Your task to perform on an android device: Open notification settings Image 0: 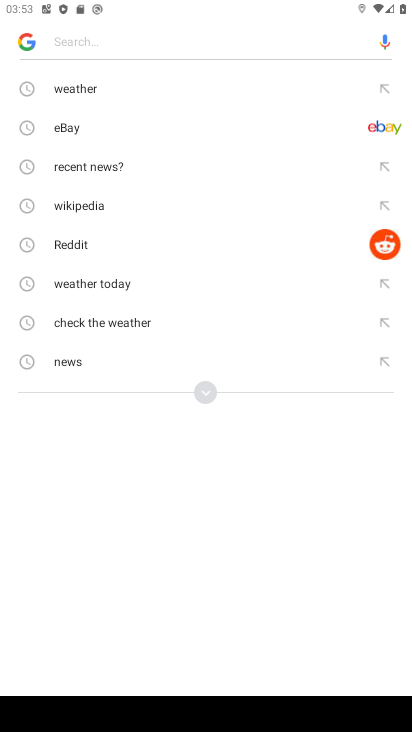
Step 0: press home button
Your task to perform on an android device: Open notification settings Image 1: 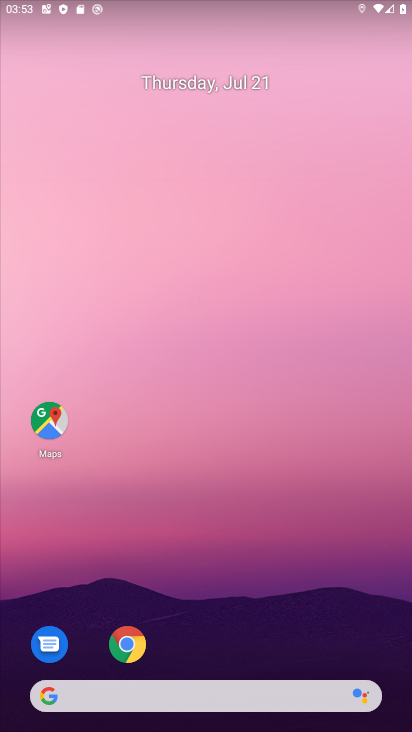
Step 1: drag from (253, 656) to (237, 13)
Your task to perform on an android device: Open notification settings Image 2: 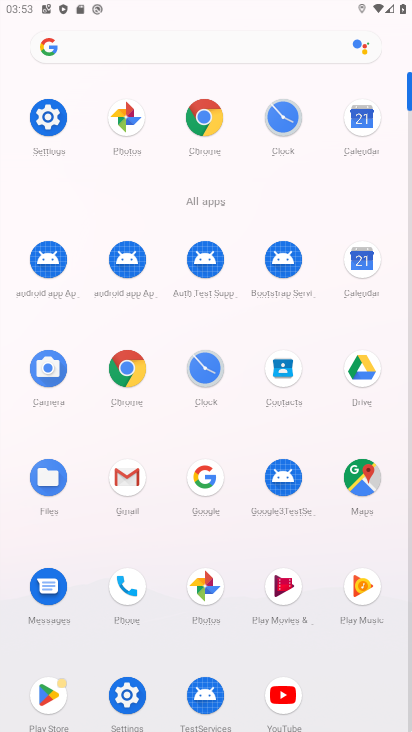
Step 2: click (44, 128)
Your task to perform on an android device: Open notification settings Image 3: 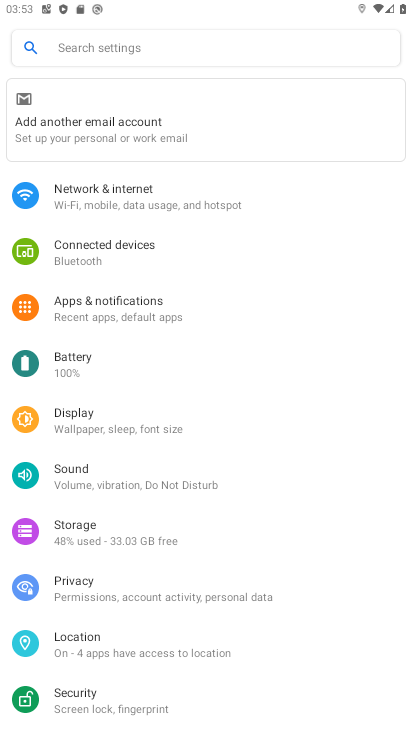
Step 3: click (101, 314)
Your task to perform on an android device: Open notification settings Image 4: 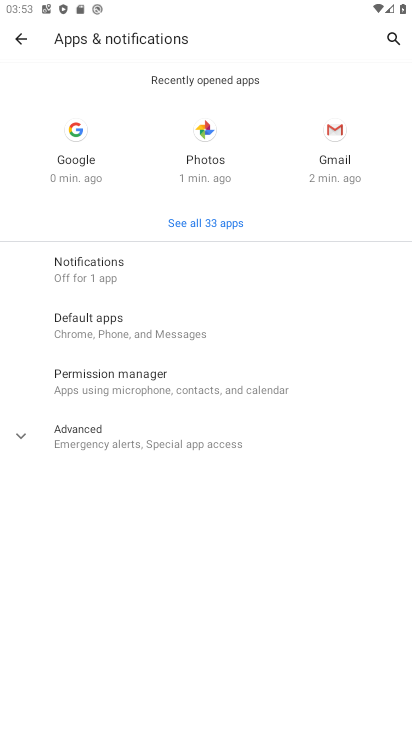
Step 4: click (78, 263)
Your task to perform on an android device: Open notification settings Image 5: 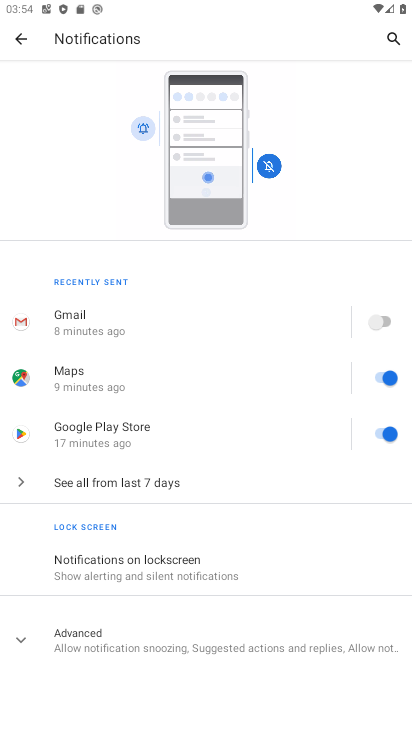
Step 5: task complete